Your task to perform on an android device: check out phone information Image 0: 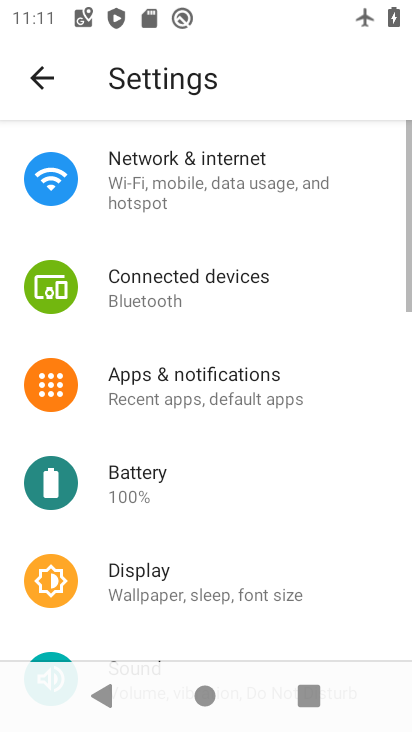
Step 0: press home button
Your task to perform on an android device: check out phone information Image 1: 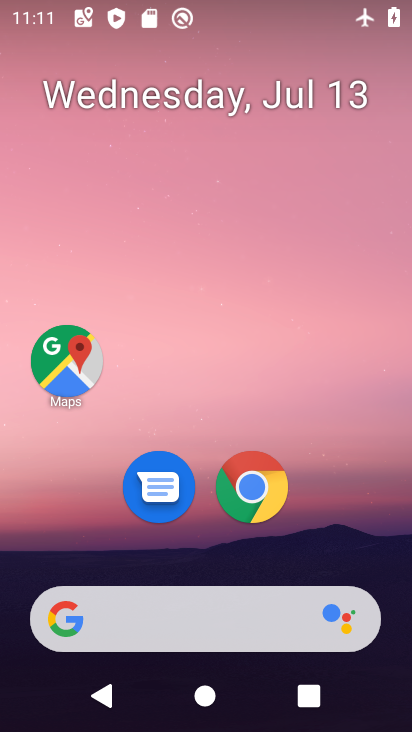
Step 1: drag from (220, 566) to (134, 191)
Your task to perform on an android device: check out phone information Image 2: 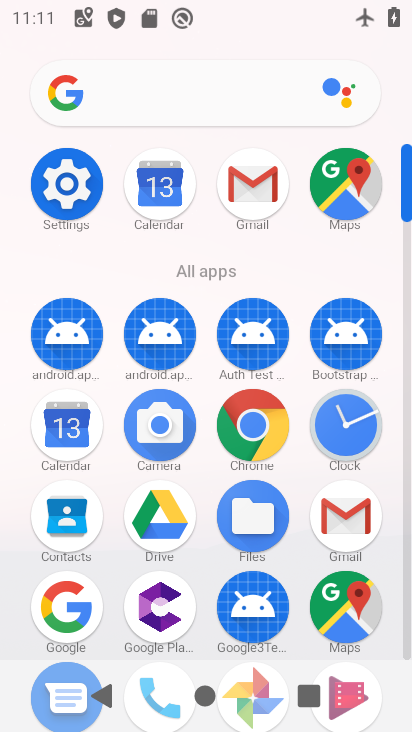
Step 2: click (46, 188)
Your task to perform on an android device: check out phone information Image 3: 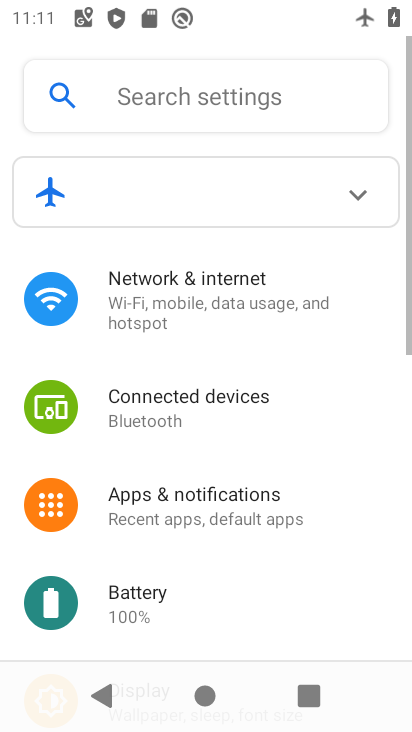
Step 3: task complete